Your task to perform on an android device: toggle location history Image 0: 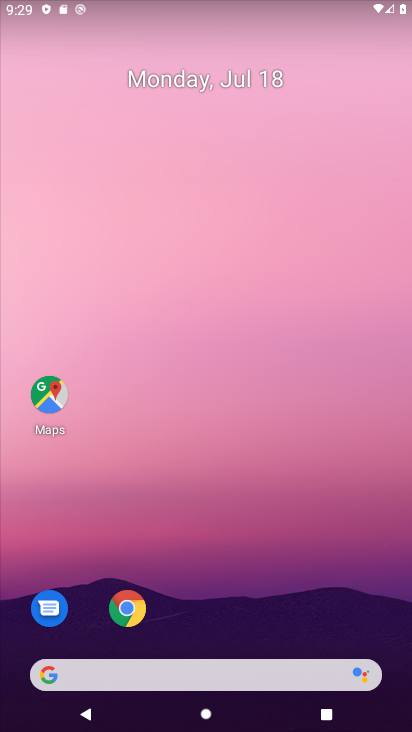
Step 0: drag from (268, 629) to (268, 192)
Your task to perform on an android device: toggle location history Image 1: 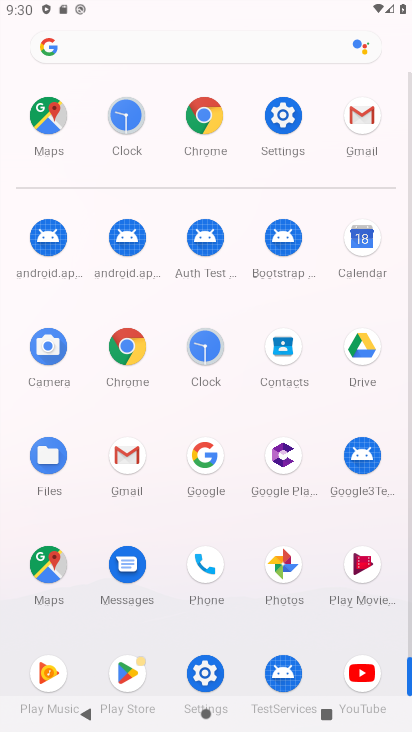
Step 1: click (275, 112)
Your task to perform on an android device: toggle location history Image 2: 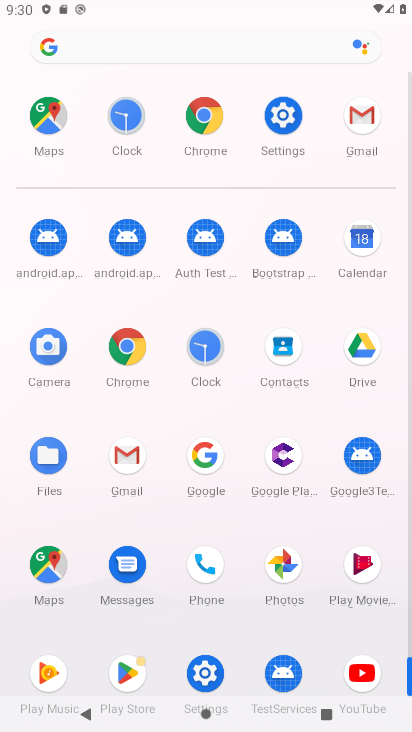
Step 2: click (275, 112)
Your task to perform on an android device: toggle location history Image 3: 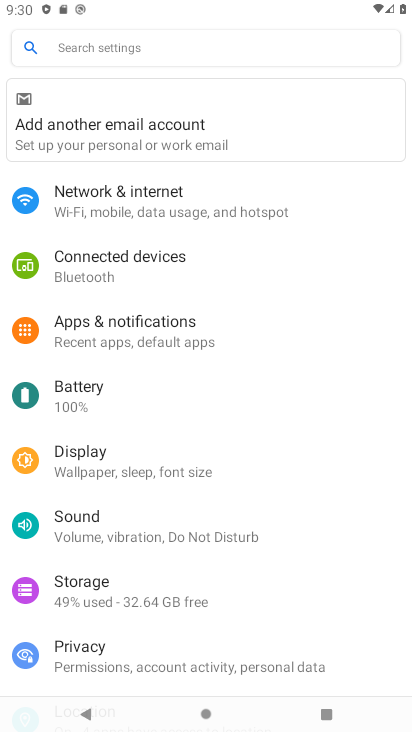
Step 3: drag from (135, 600) to (140, 168)
Your task to perform on an android device: toggle location history Image 4: 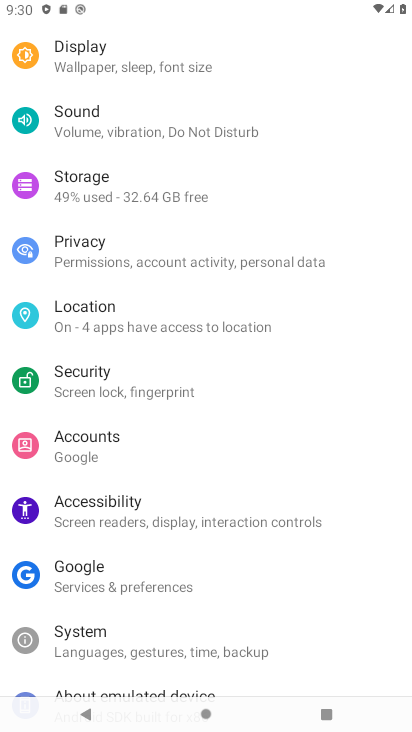
Step 4: drag from (171, 483) to (146, 149)
Your task to perform on an android device: toggle location history Image 5: 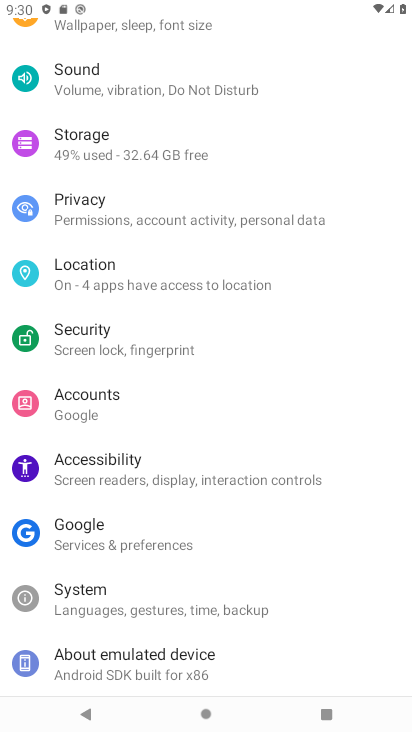
Step 5: click (108, 276)
Your task to perform on an android device: toggle location history Image 6: 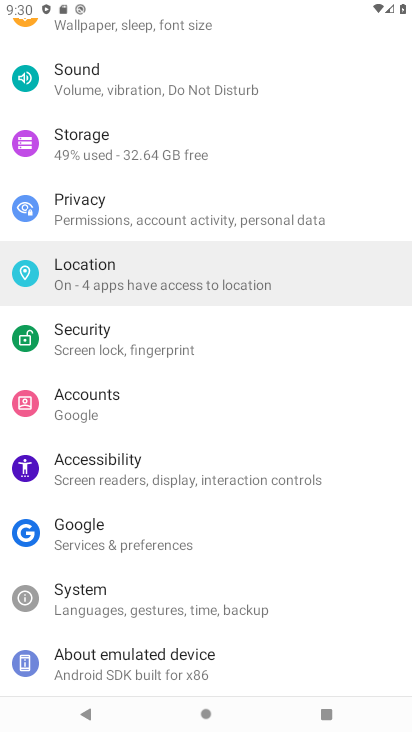
Step 6: click (108, 278)
Your task to perform on an android device: toggle location history Image 7: 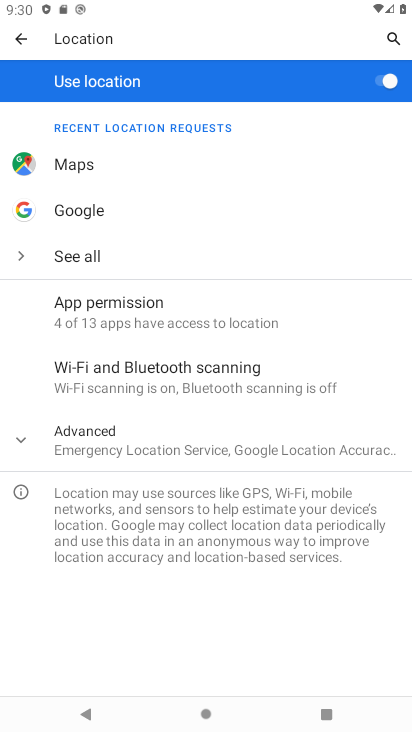
Step 7: click (139, 444)
Your task to perform on an android device: toggle location history Image 8: 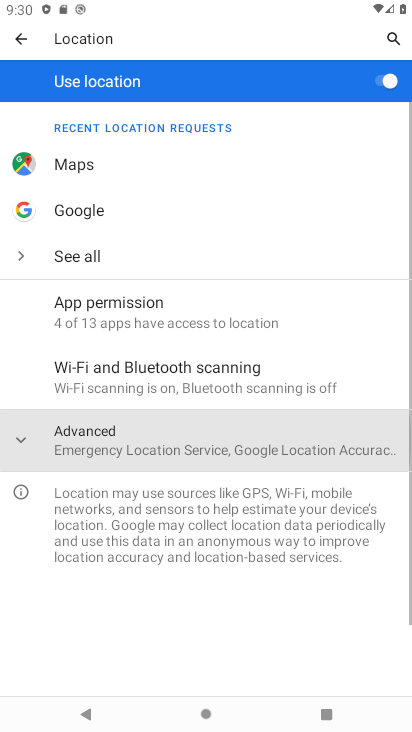
Step 8: click (139, 444)
Your task to perform on an android device: toggle location history Image 9: 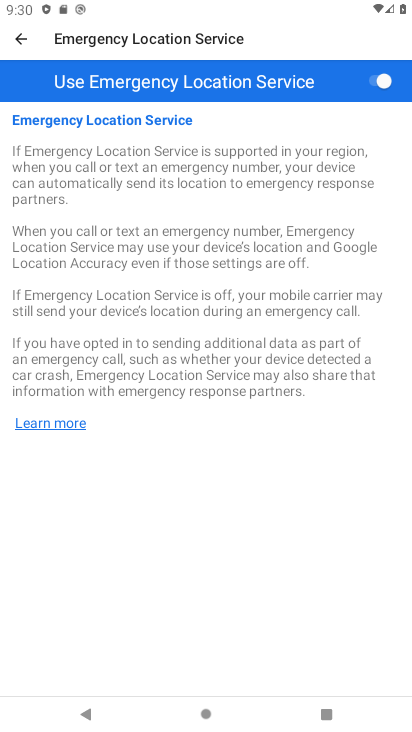
Step 9: click (16, 45)
Your task to perform on an android device: toggle location history Image 10: 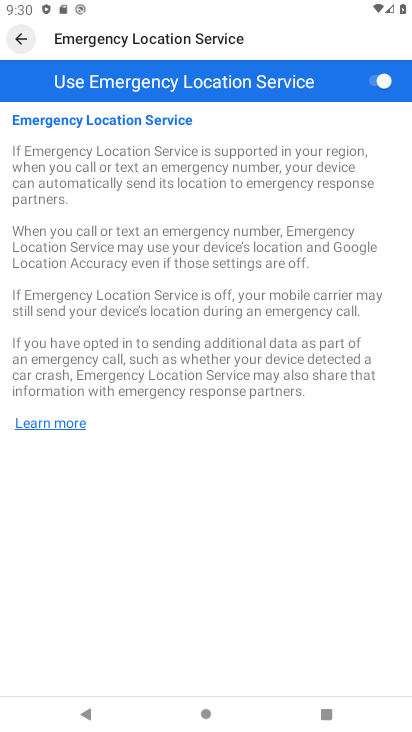
Step 10: click (24, 37)
Your task to perform on an android device: toggle location history Image 11: 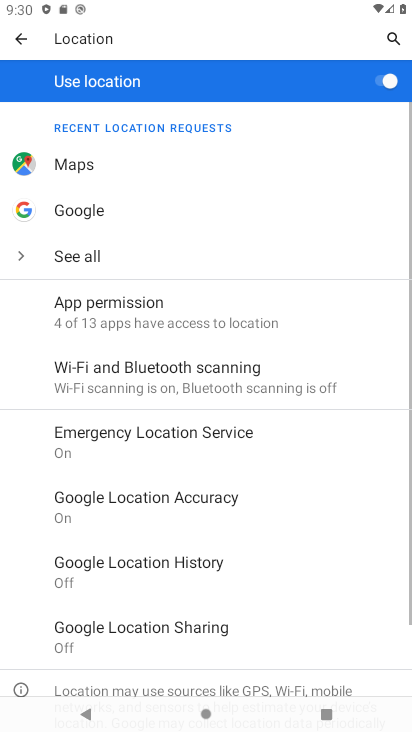
Step 11: click (208, 572)
Your task to perform on an android device: toggle location history Image 12: 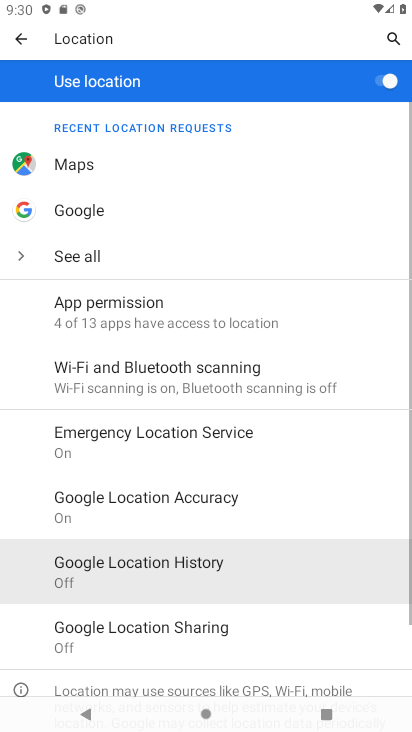
Step 12: click (204, 560)
Your task to perform on an android device: toggle location history Image 13: 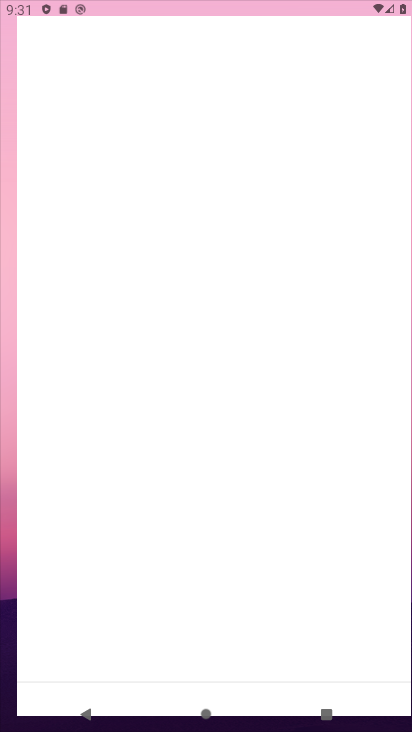
Step 13: click (204, 559)
Your task to perform on an android device: toggle location history Image 14: 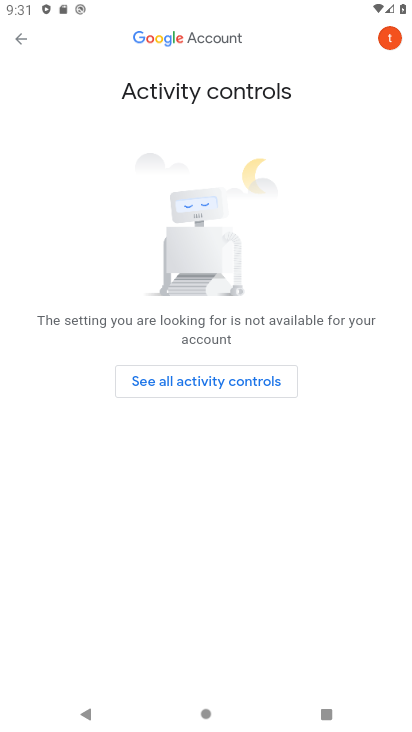
Step 14: task complete